Your task to perform on an android device: What's the weather? Image 0: 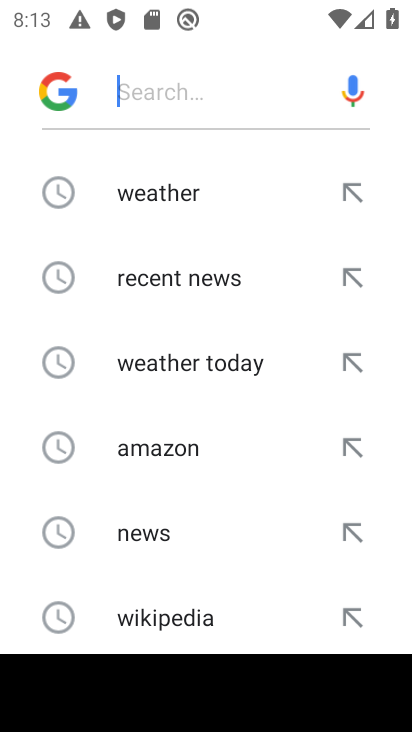
Step 0: click (159, 175)
Your task to perform on an android device: What's the weather? Image 1: 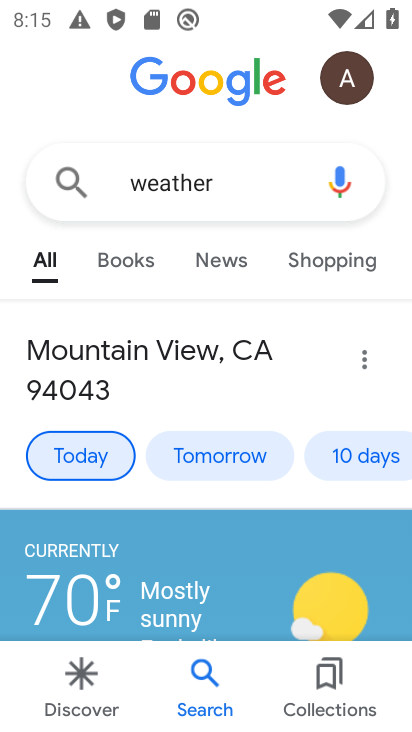
Step 1: task complete